Your task to perform on an android device: toggle translation in the chrome app Image 0: 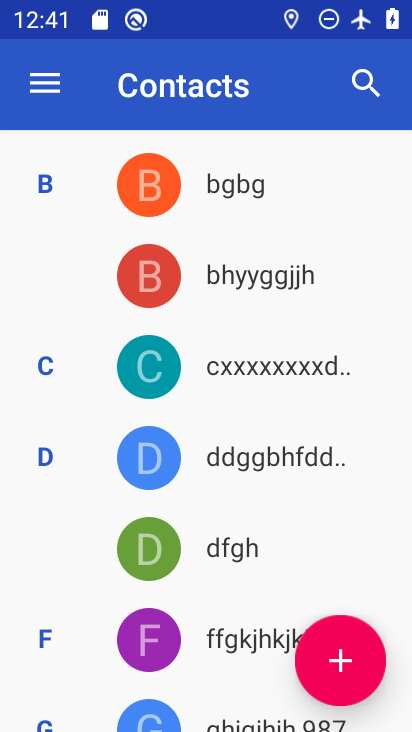
Step 0: press home button
Your task to perform on an android device: toggle translation in the chrome app Image 1: 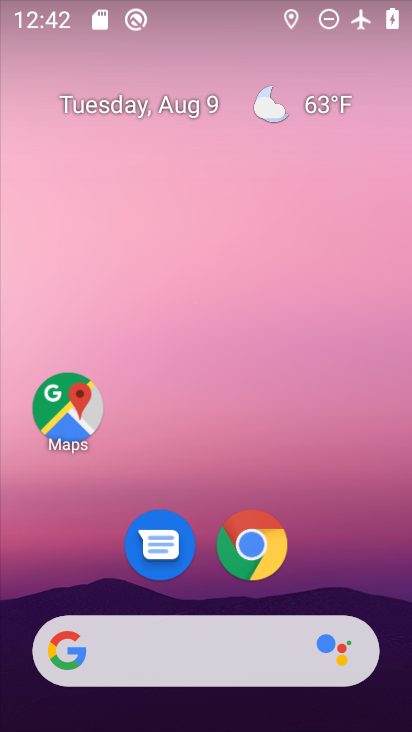
Step 1: click (253, 541)
Your task to perform on an android device: toggle translation in the chrome app Image 2: 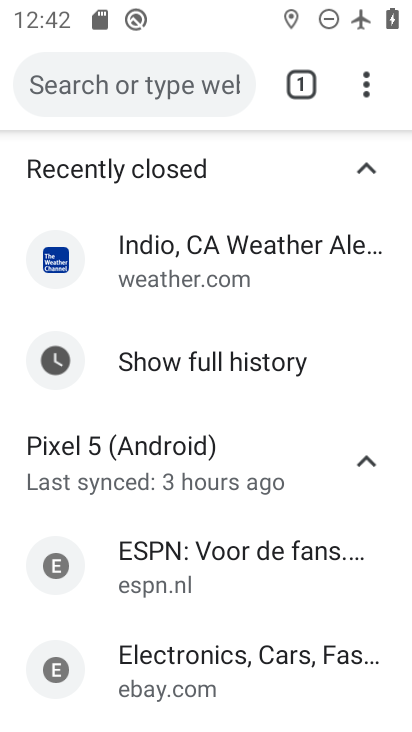
Step 2: click (365, 87)
Your task to perform on an android device: toggle translation in the chrome app Image 3: 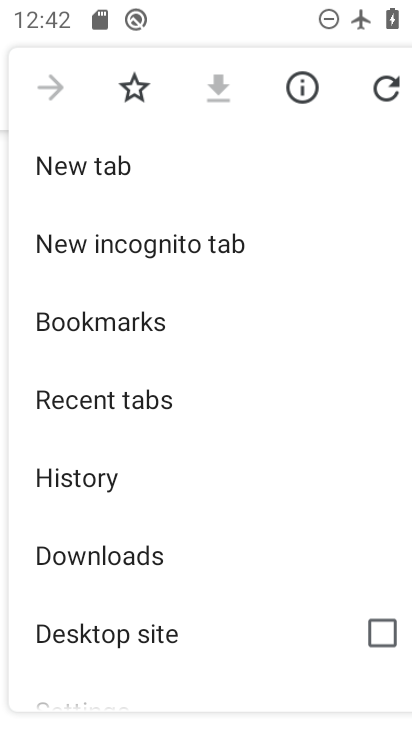
Step 3: drag from (122, 501) to (211, 385)
Your task to perform on an android device: toggle translation in the chrome app Image 4: 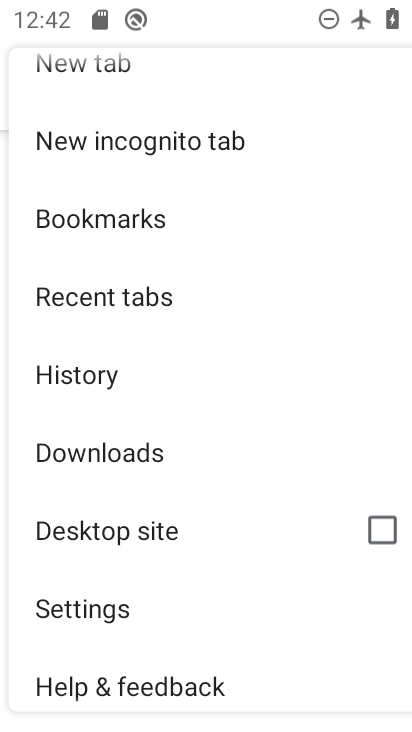
Step 4: drag from (95, 556) to (185, 417)
Your task to perform on an android device: toggle translation in the chrome app Image 5: 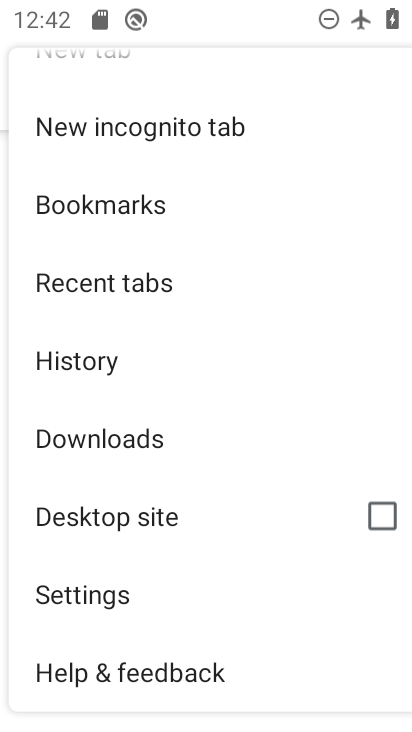
Step 5: click (94, 593)
Your task to perform on an android device: toggle translation in the chrome app Image 6: 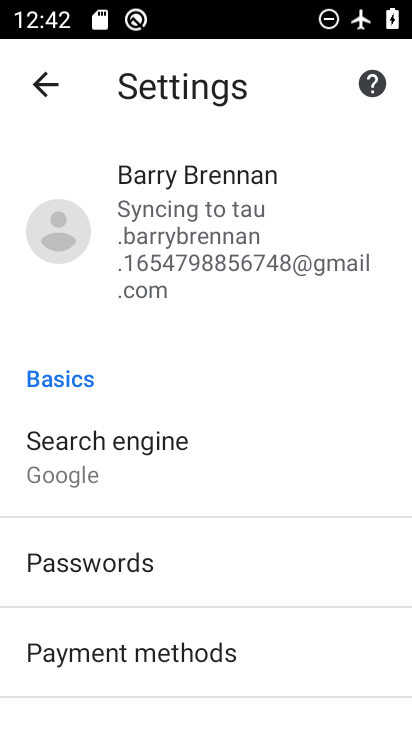
Step 6: drag from (175, 575) to (224, 461)
Your task to perform on an android device: toggle translation in the chrome app Image 7: 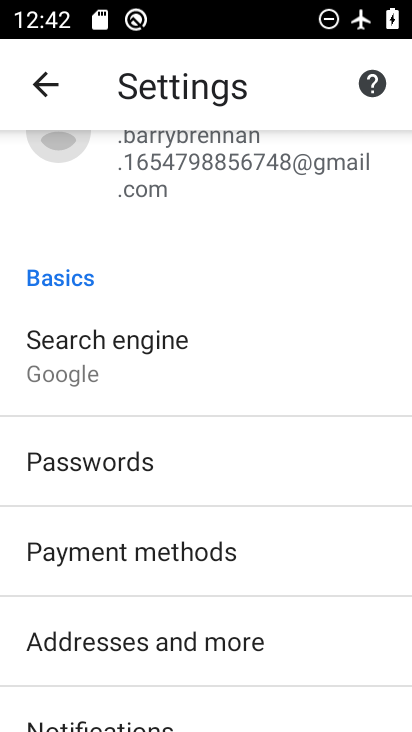
Step 7: drag from (154, 629) to (229, 473)
Your task to perform on an android device: toggle translation in the chrome app Image 8: 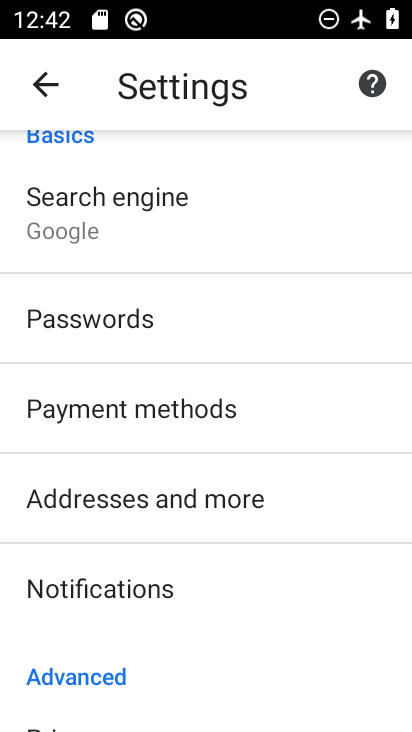
Step 8: drag from (158, 649) to (237, 497)
Your task to perform on an android device: toggle translation in the chrome app Image 9: 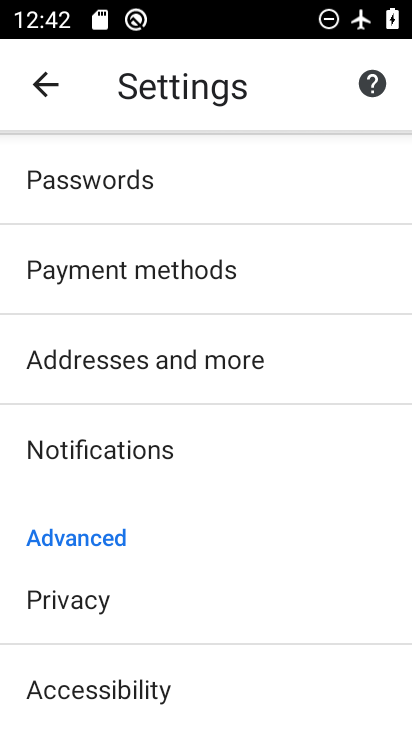
Step 9: drag from (148, 682) to (235, 511)
Your task to perform on an android device: toggle translation in the chrome app Image 10: 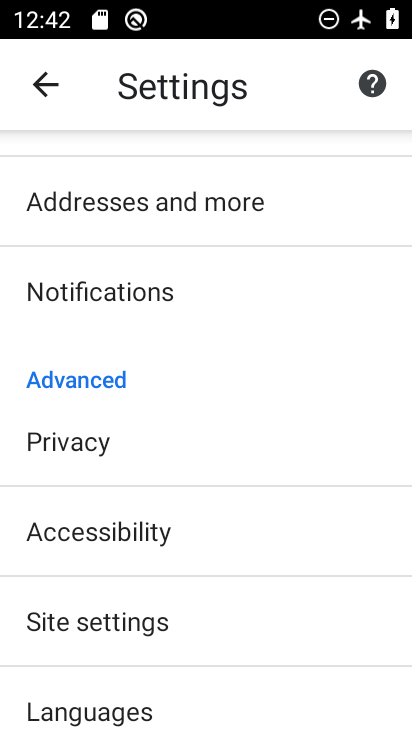
Step 10: click (124, 704)
Your task to perform on an android device: toggle translation in the chrome app Image 11: 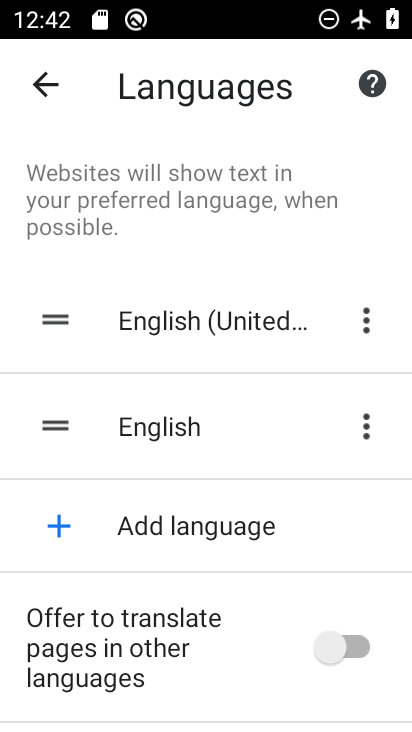
Step 11: click (339, 647)
Your task to perform on an android device: toggle translation in the chrome app Image 12: 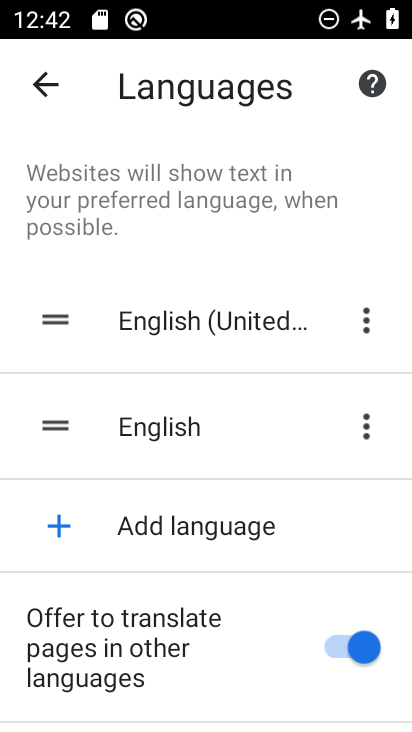
Step 12: task complete